Your task to perform on an android device: Go to Yahoo.com Image 0: 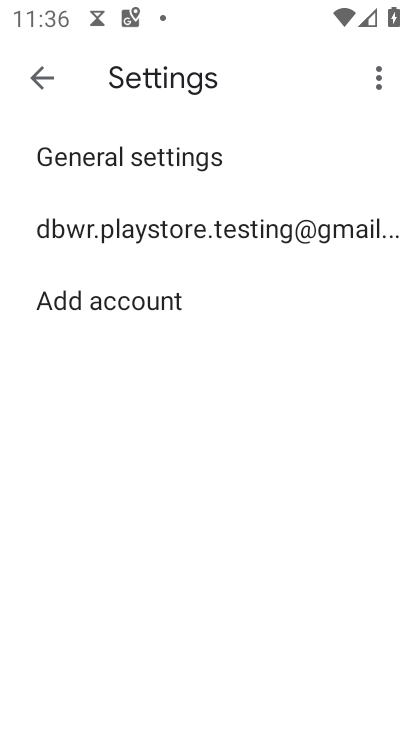
Step 0: press home button
Your task to perform on an android device: Go to Yahoo.com Image 1: 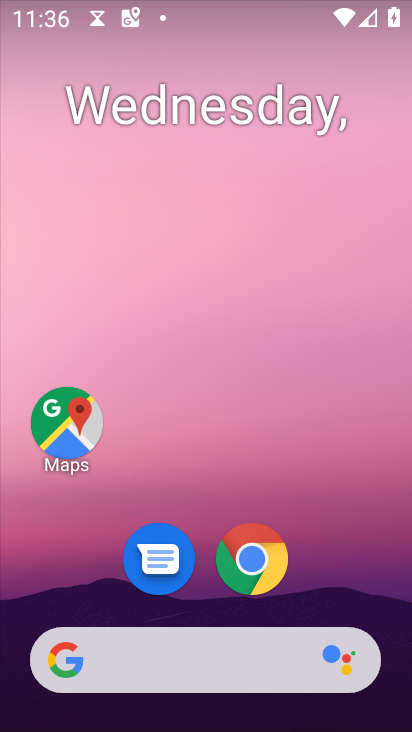
Step 1: click (239, 574)
Your task to perform on an android device: Go to Yahoo.com Image 2: 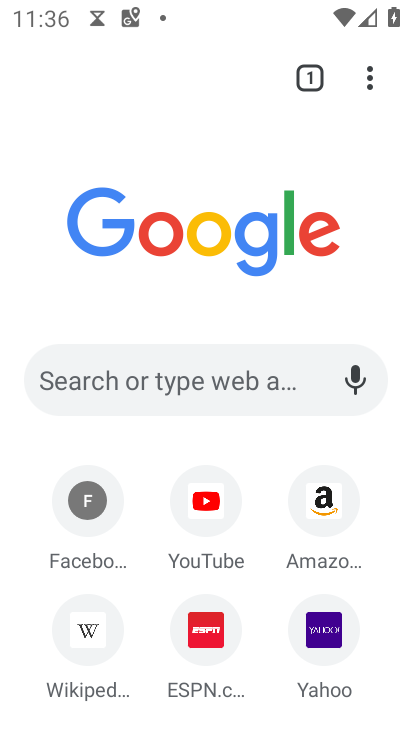
Step 2: click (330, 630)
Your task to perform on an android device: Go to Yahoo.com Image 3: 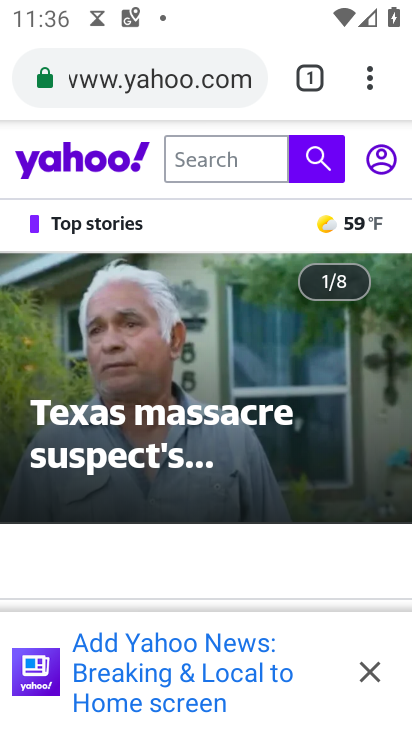
Step 3: task complete